Your task to perform on an android device: Clear the cart on walmart. Add "amazon basics triple a" to the cart on walmart, then select checkout. Image 0: 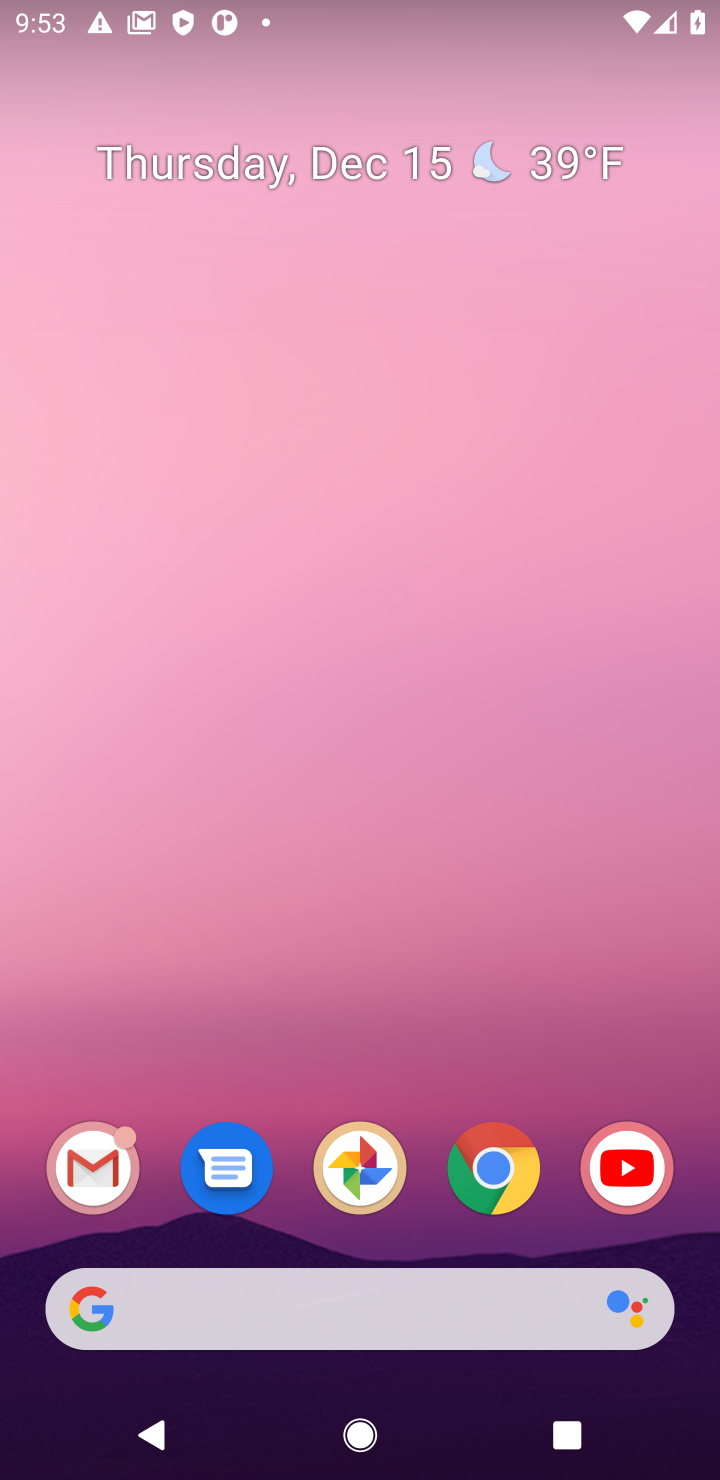
Step 0: click (490, 1160)
Your task to perform on an android device: Clear the cart on walmart. Add "amazon basics triple a" to the cart on walmart, then select checkout. Image 1: 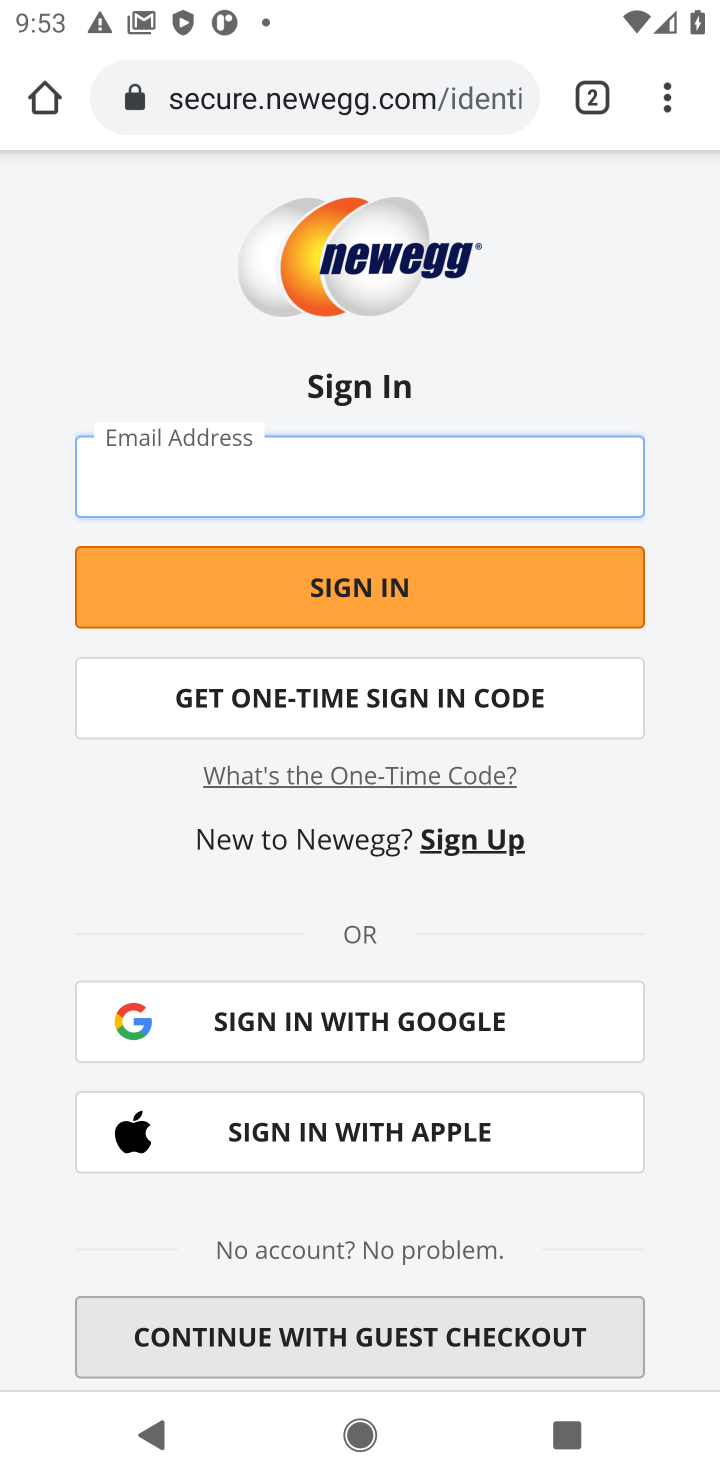
Step 1: click (281, 83)
Your task to perform on an android device: Clear the cart on walmart. Add "amazon basics triple a" to the cart on walmart, then select checkout. Image 2: 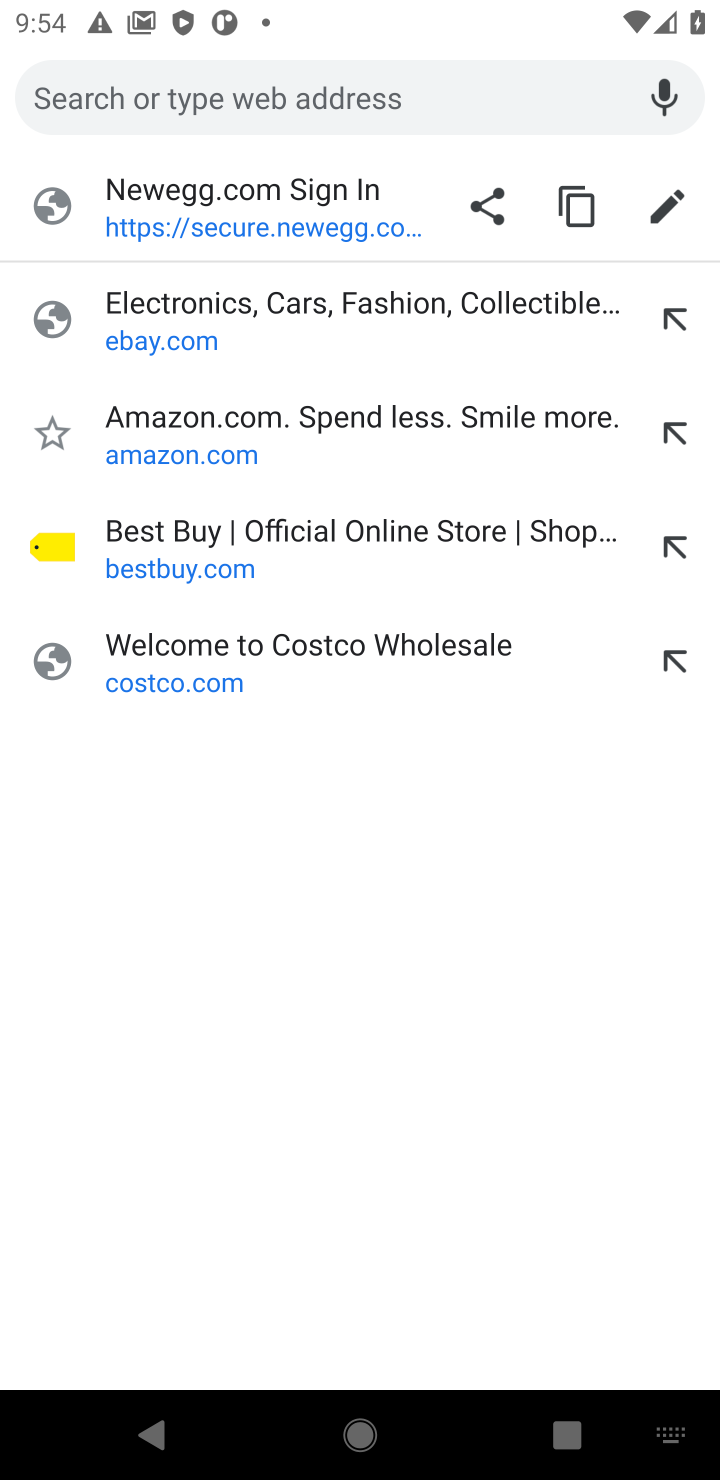
Step 2: type "walmart"
Your task to perform on an android device: Clear the cart on walmart. Add "amazon basics triple a" to the cart on walmart, then select checkout. Image 3: 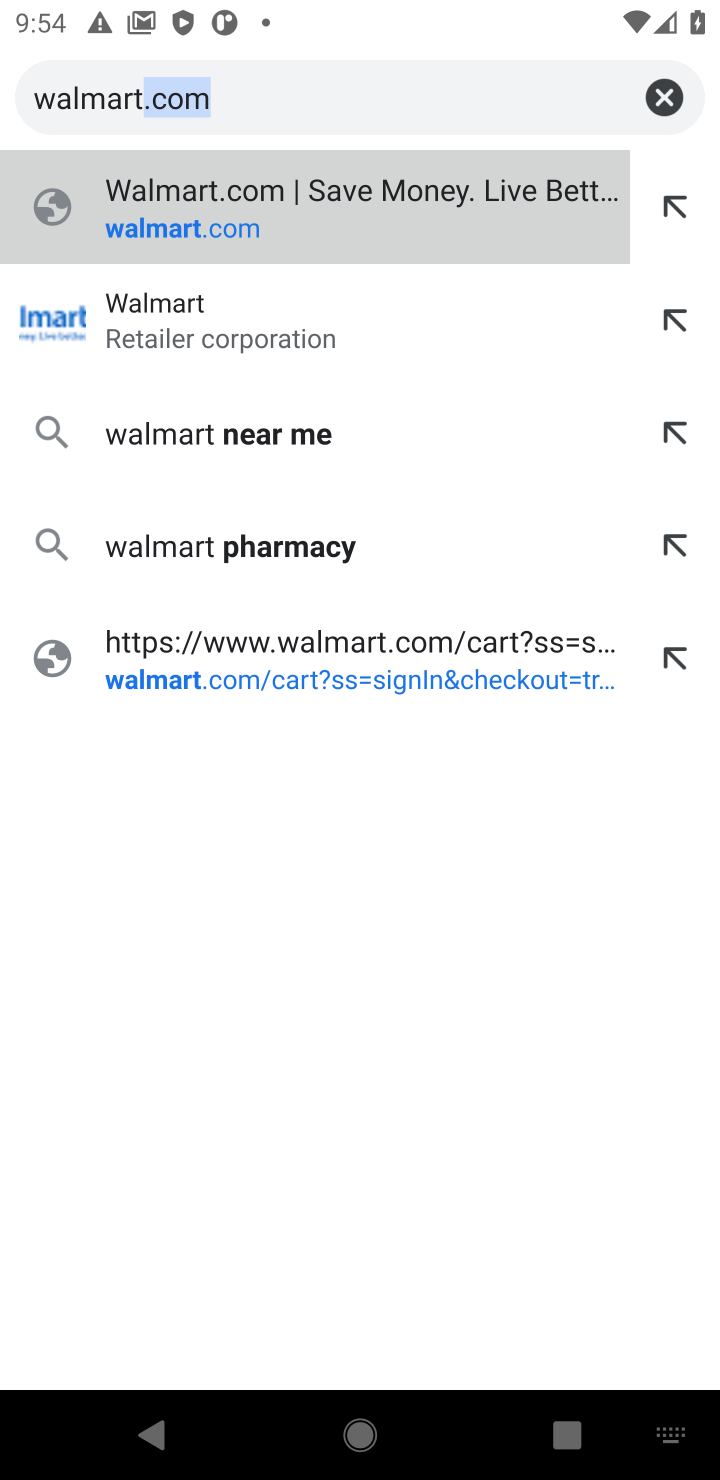
Step 3: click (513, 206)
Your task to perform on an android device: Clear the cart on walmart. Add "amazon basics triple a" to the cart on walmart, then select checkout. Image 4: 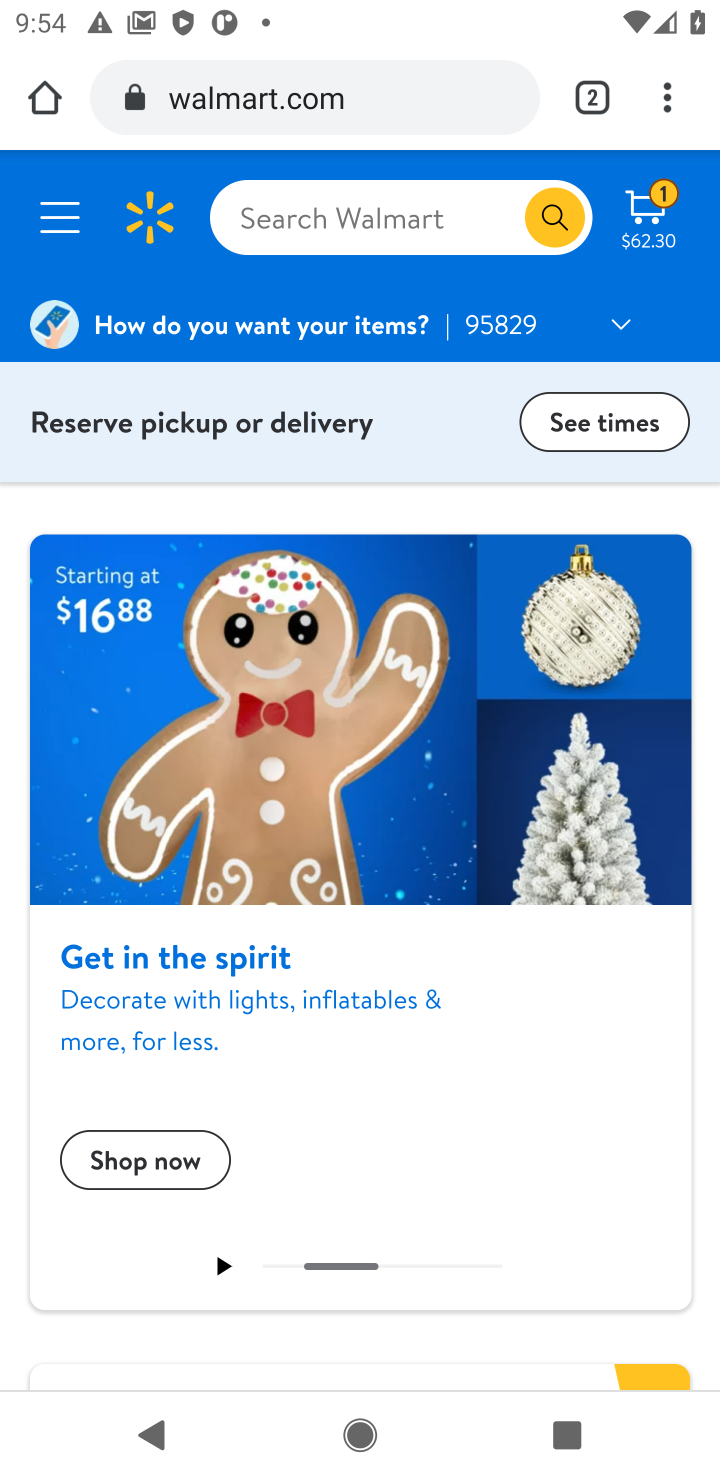
Step 4: click (380, 215)
Your task to perform on an android device: Clear the cart on walmart. Add "amazon basics triple a" to the cart on walmart, then select checkout. Image 5: 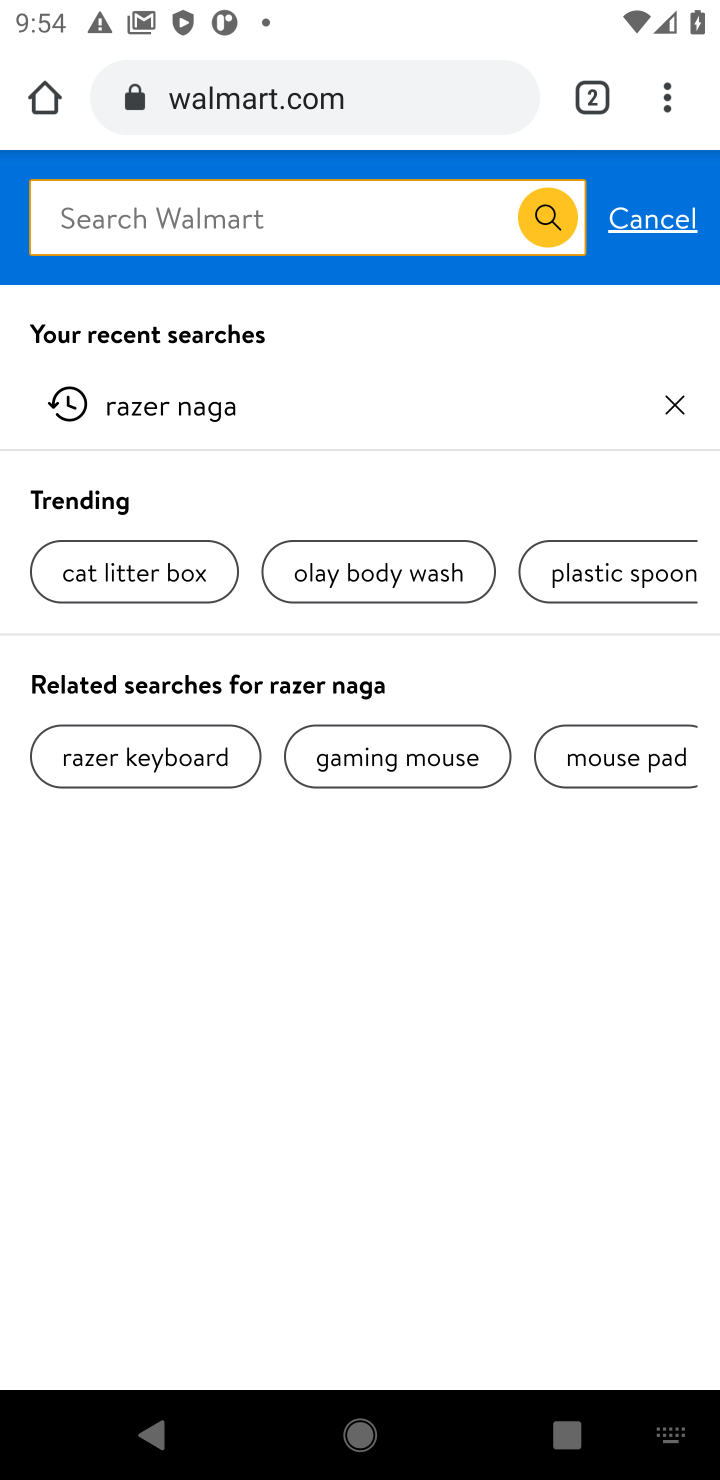
Step 5: type "amazon basics triple a"
Your task to perform on an android device: Clear the cart on walmart. Add "amazon basics triple a" to the cart on walmart, then select checkout. Image 6: 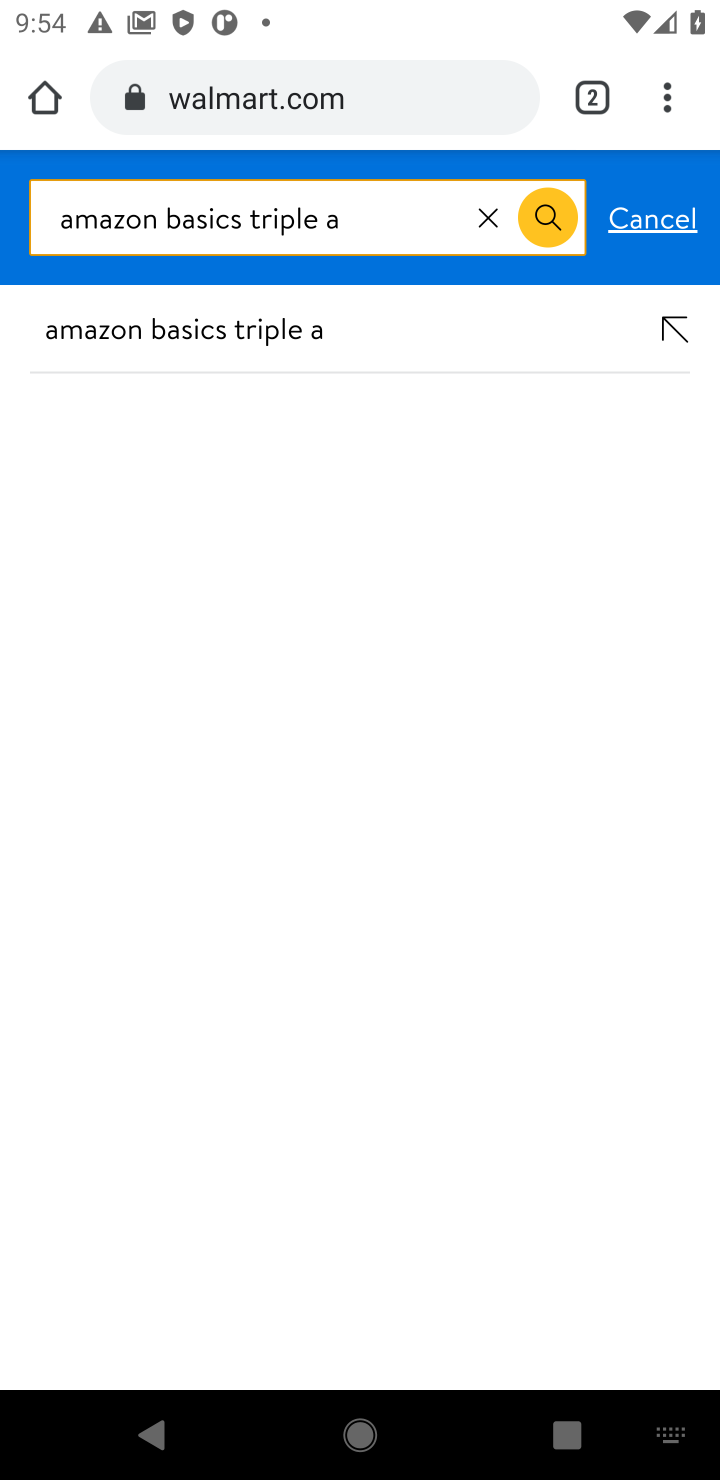
Step 6: click (191, 340)
Your task to perform on an android device: Clear the cart on walmart. Add "amazon basics triple a" to the cart on walmart, then select checkout. Image 7: 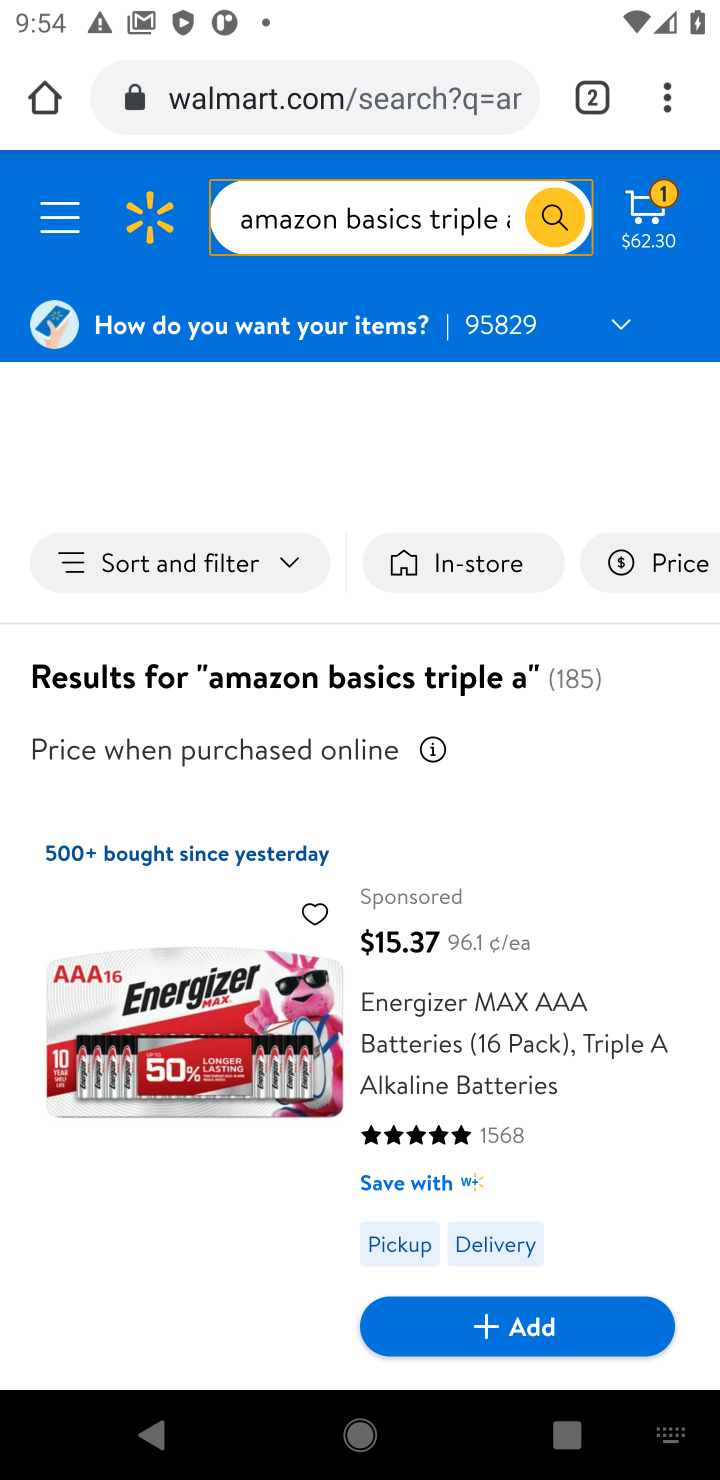
Step 7: click (519, 1335)
Your task to perform on an android device: Clear the cart on walmart. Add "amazon basics triple a" to the cart on walmart, then select checkout. Image 8: 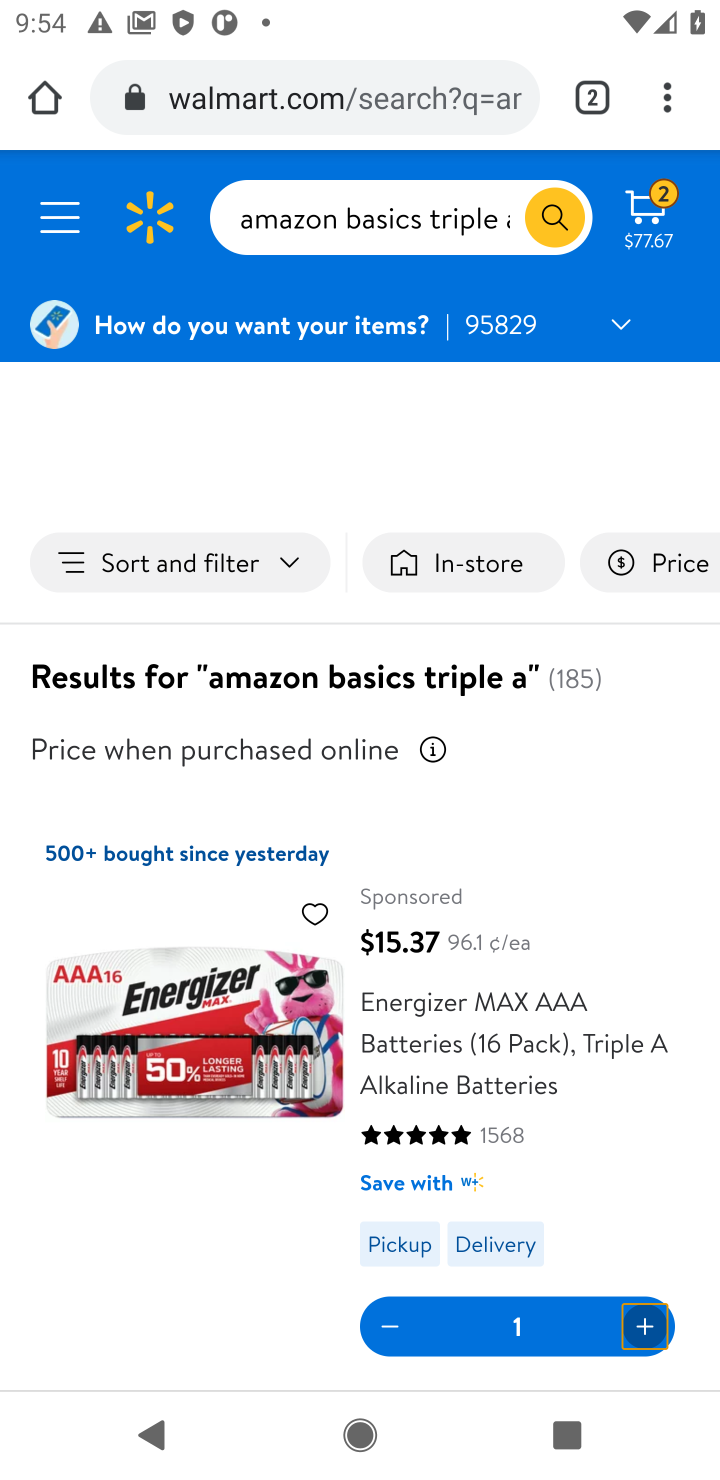
Step 8: click (645, 209)
Your task to perform on an android device: Clear the cart on walmart. Add "amazon basics triple a" to the cart on walmart, then select checkout. Image 9: 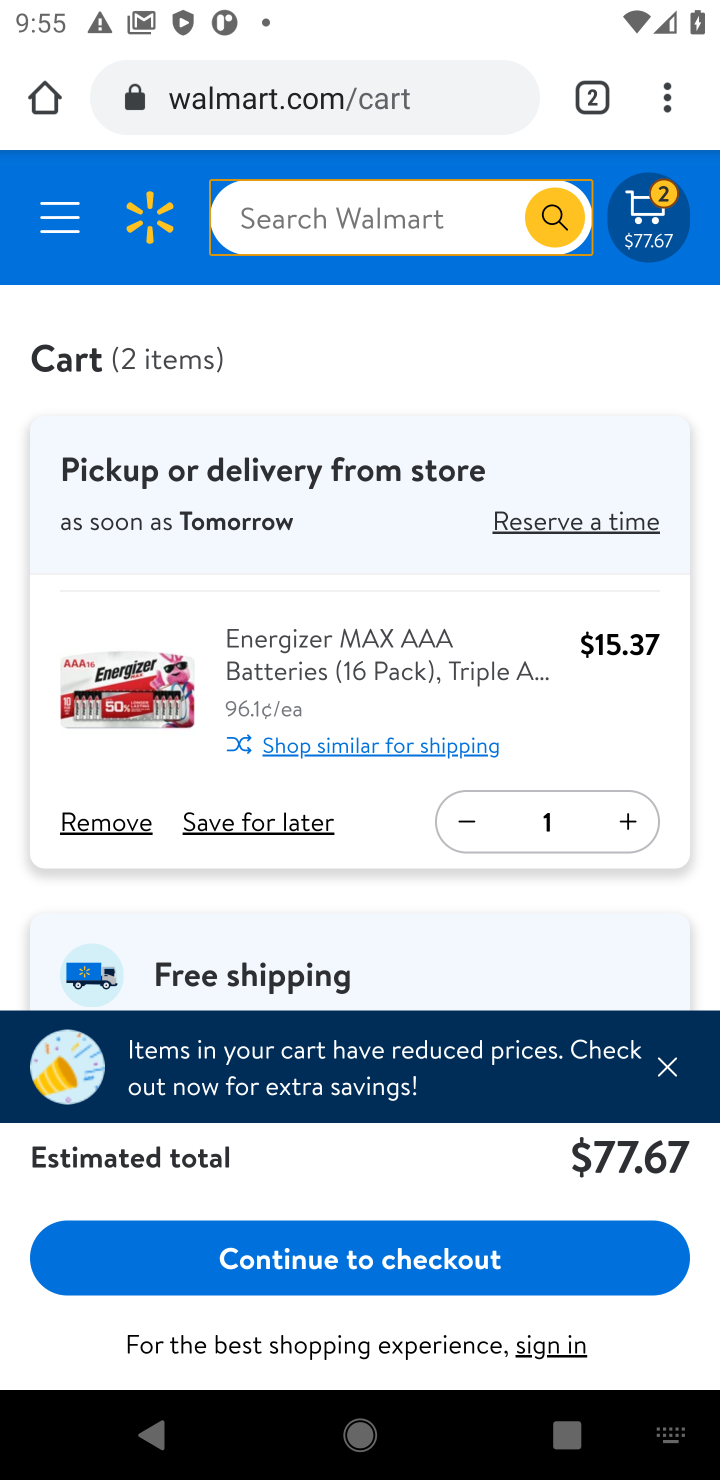
Step 9: click (428, 1258)
Your task to perform on an android device: Clear the cart on walmart. Add "amazon basics triple a" to the cart on walmart, then select checkout. Image 10: 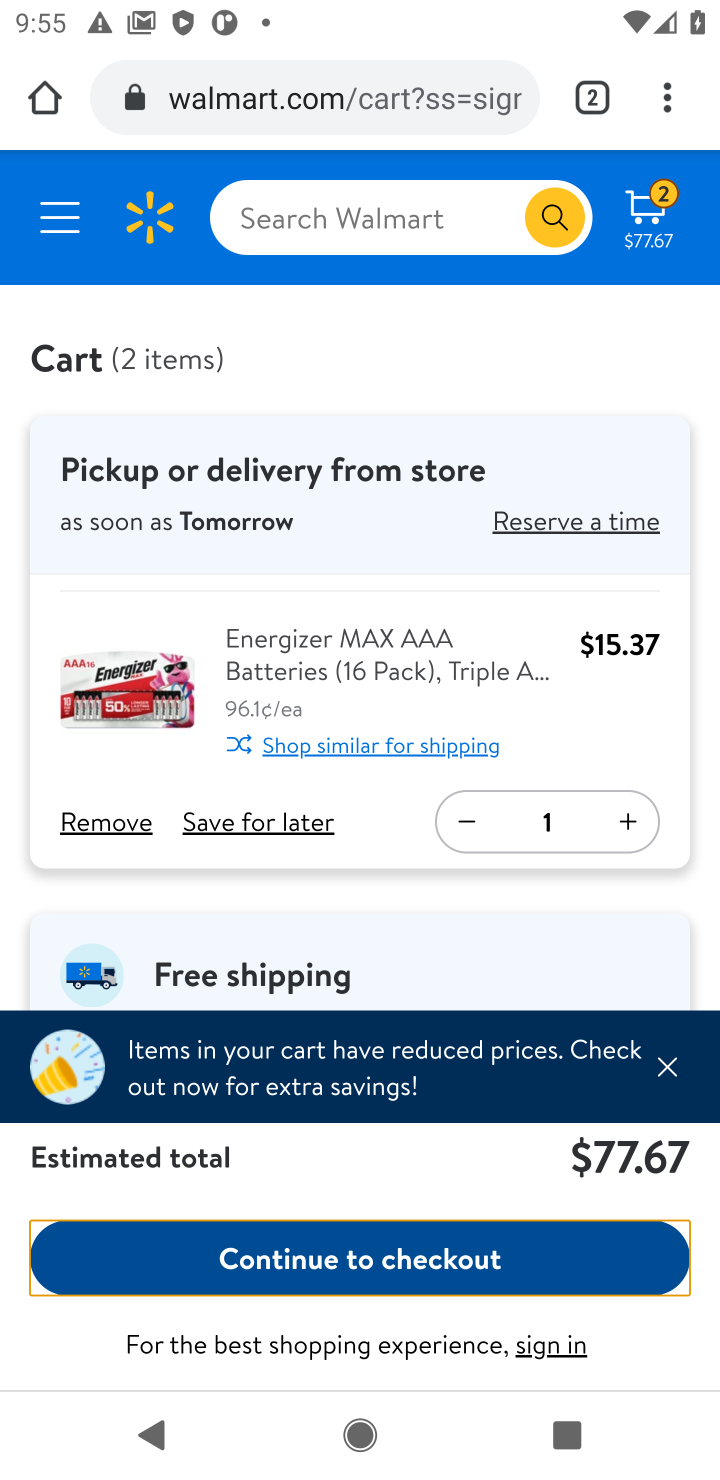
Step 10: task complete